Your task to perform on an android device: Open Google Chrome Image 0: 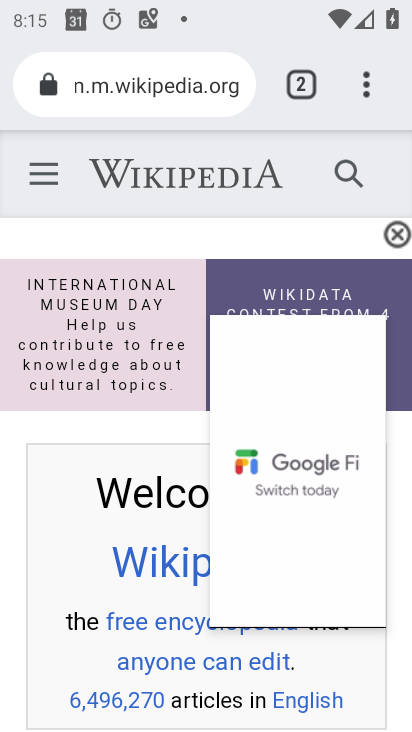
Step 0: task complete